Your task to perform on an android device: Open Yahoo.com Image 0: 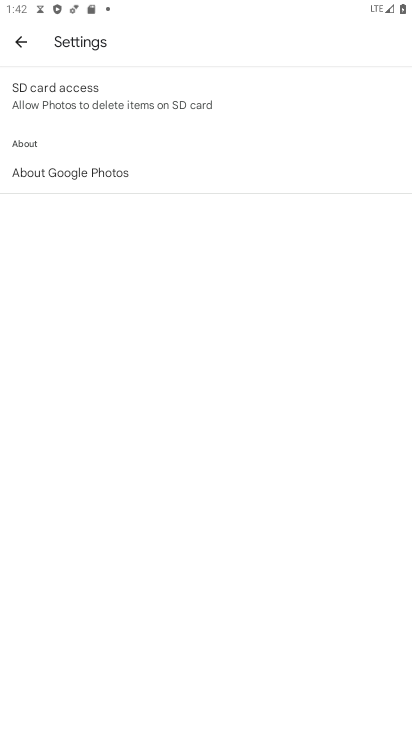
Step 0: press home button
Your task to perform on an android device: Open Yahoo.com Image 1: 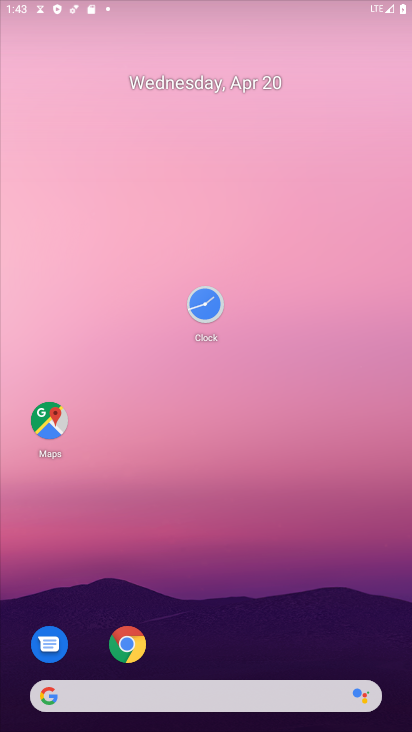
Step 1: drag from (230, 545) to (270, 138)
Your task to perform on an android device: Open Yahoo.com Image 2: 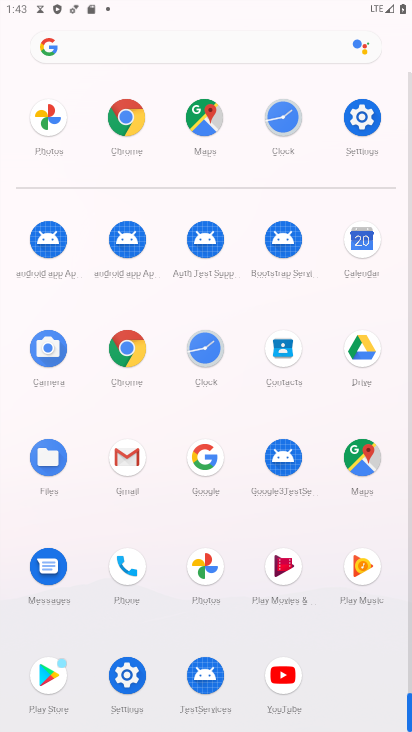
Step 2: click (116, 350)
Your task to perform on an android device: Open Yahoo.com Image 3: 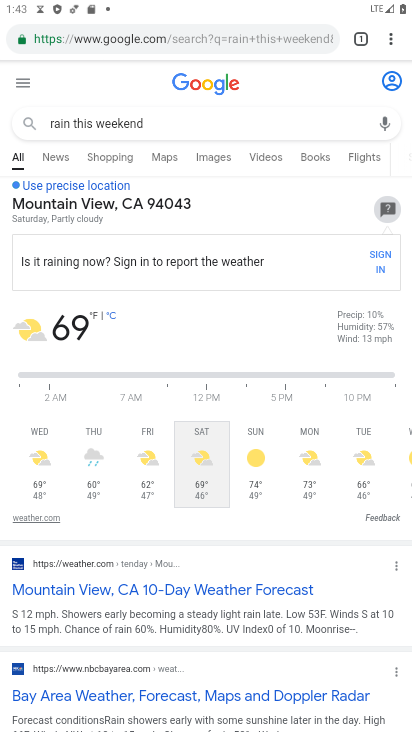
Step 3: click (288, 35)
Your task to perform on an android device: Open Yahoo.com Image 4: 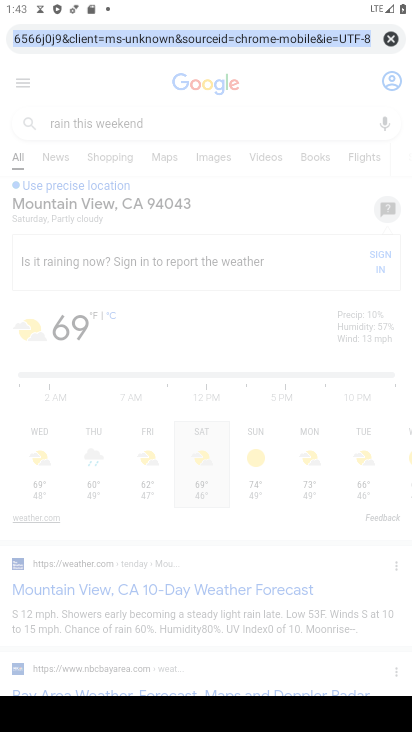
Step 4: click (393, 35)
Your task to perform on an android device: Open Yahoo.com Image 5: 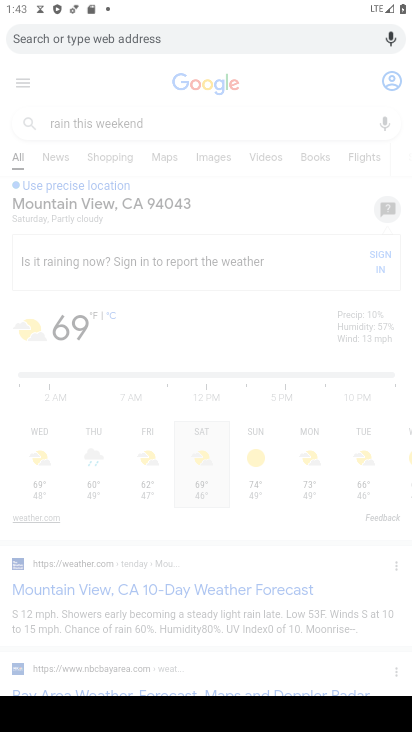
Step 5: type "yahoo.com"
Your task to perform on an android device: Open Yahoo.com Image 6: 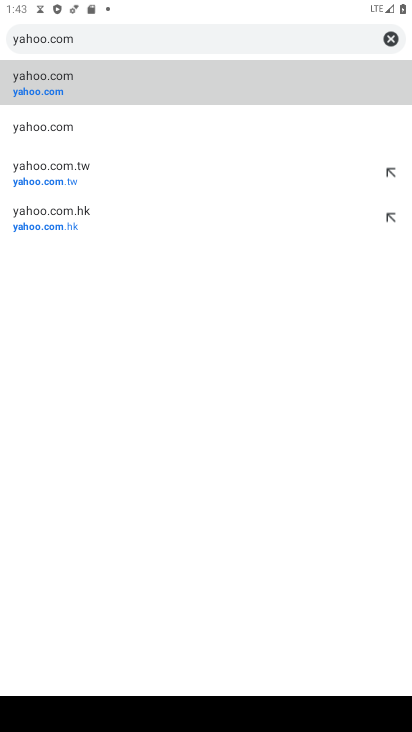
Step 6: click (166, 85)
Your task to perform on an android device: Open Yahoo.com Image 7: 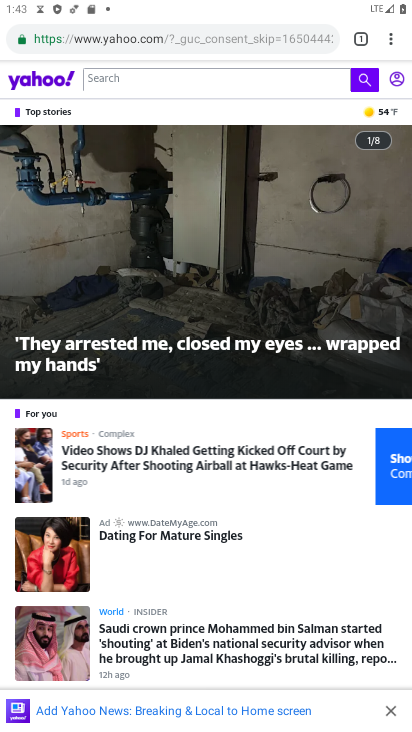
Step 7: task complete